Your task to perform on an android device: Open Google Chrome and click the shortcut for Amazon.com Image 0: 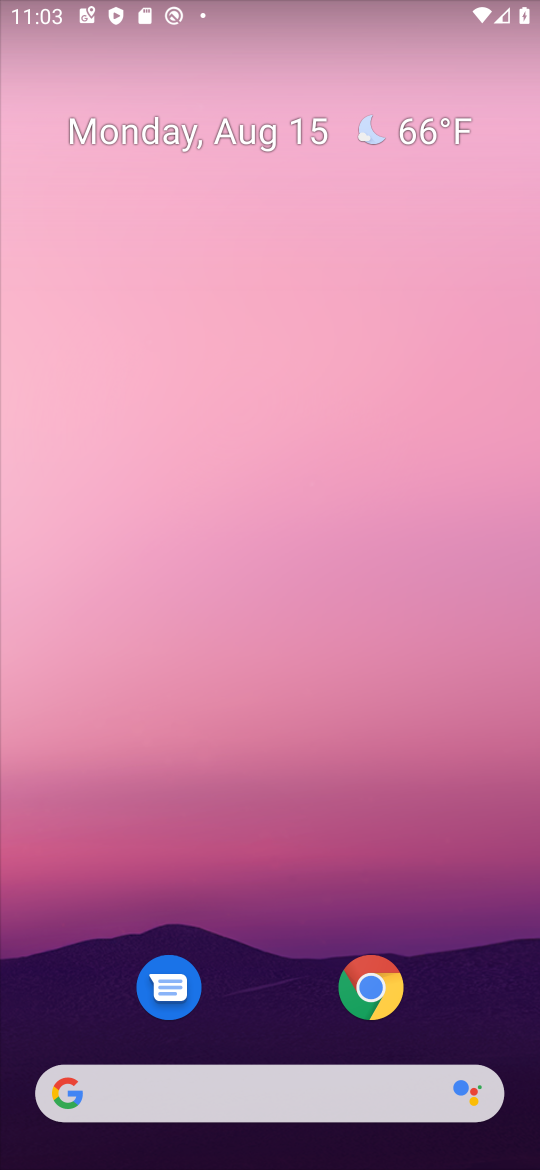
Step 0: click (356, 988)
Your task to perform on an android device: Open Google Chrome and click the shortcut for Amazon.com Image 1: 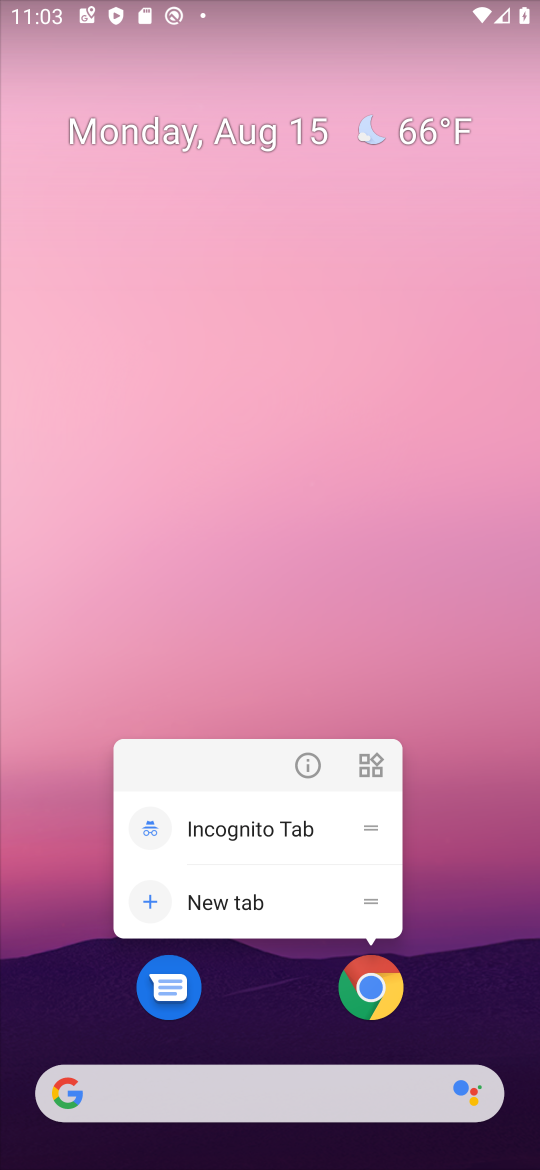
Step 1: click (380, 976)
Your task to perform on an android device: Open Google Chrome and click the shortcut for Amazon.com Image 2: 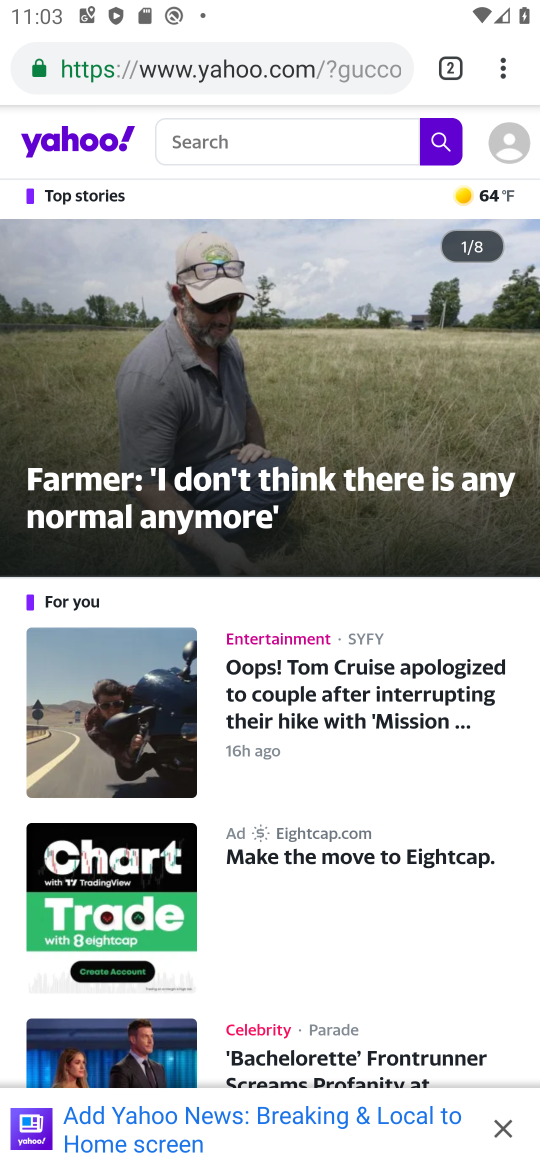
Step 2: click (444, 71)
Your task to perform on an android device: Open Google Chrome and click the shortcut for Amazon.com Image 3: 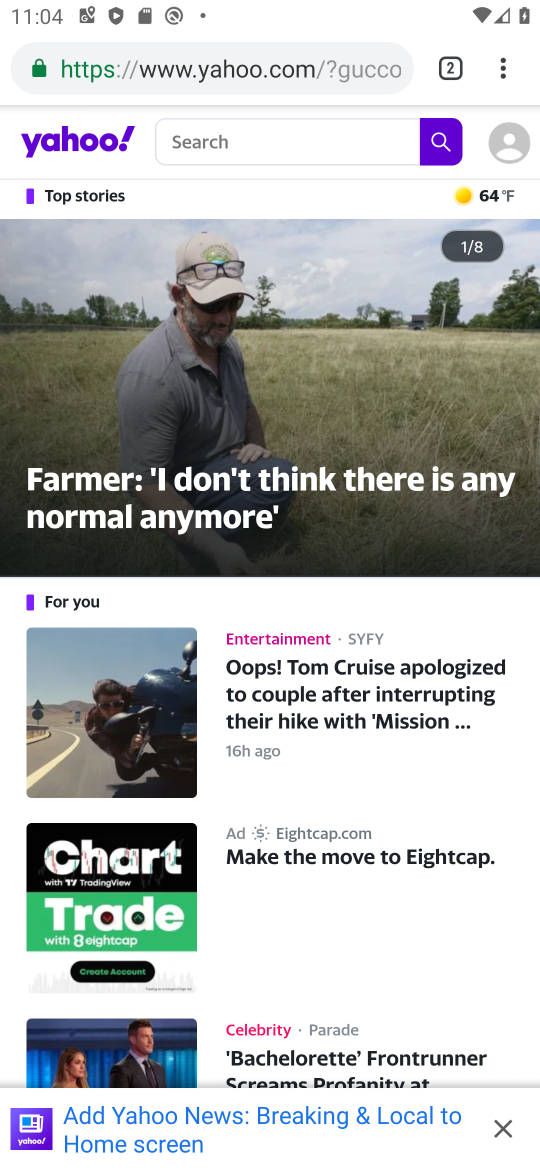
Step 3: click (435, 64)
Your task to perform on an android device: Open Google Chrome and click the shortcut for Amazon.com Image 4: 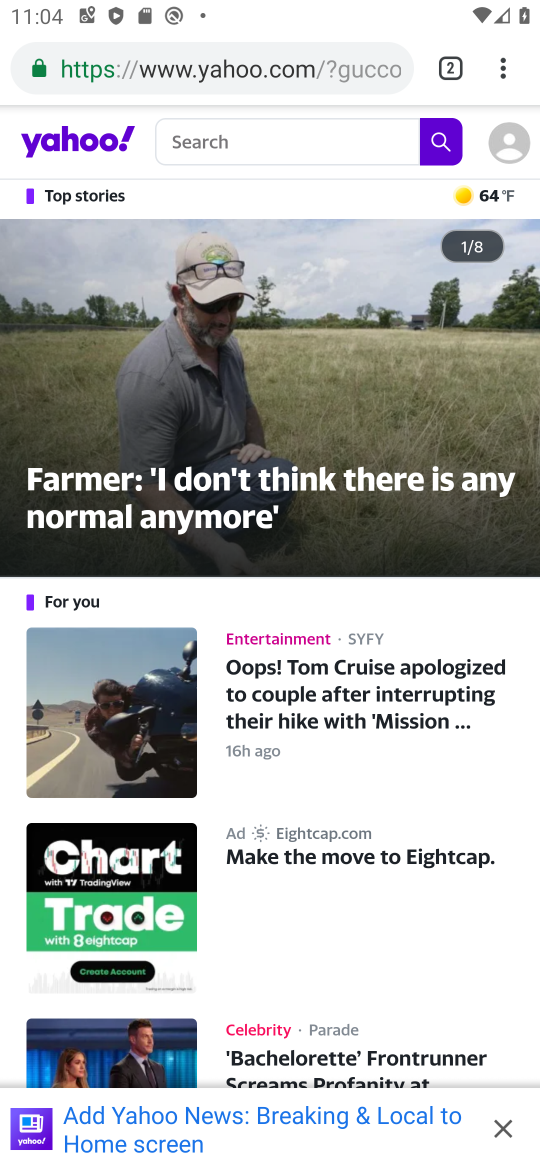
Step 4: click (446, 76)
Your task to perform on an android device: Open Google Chrome and click the shortcut for Amazon.com Image 5: 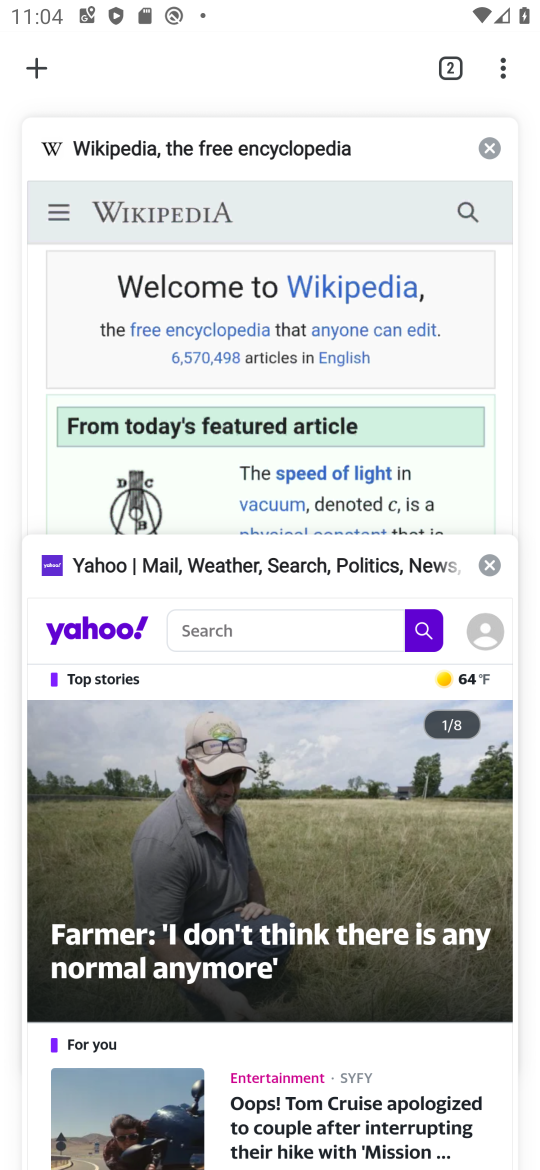
Step 5: click (34, 77)
Your task to perform on an android device: Open Google Chrome and click the shortcut for Amazon.com Image 6: 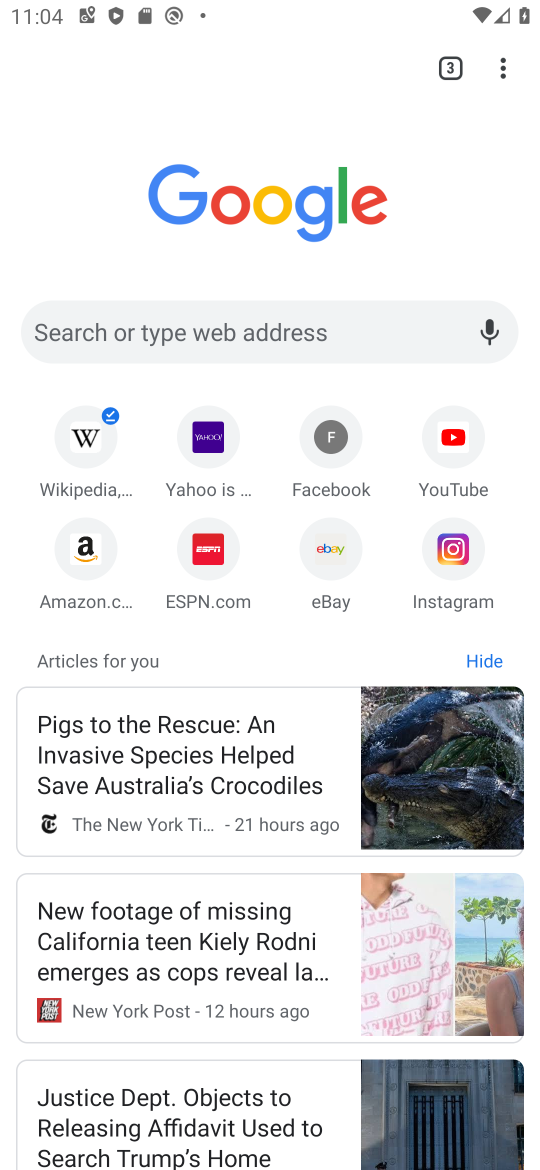
Step 6: click (76, 535)
Your task to perform on an android device: Open Google Chrome and click the shortcut for Amazon.com Image 7: 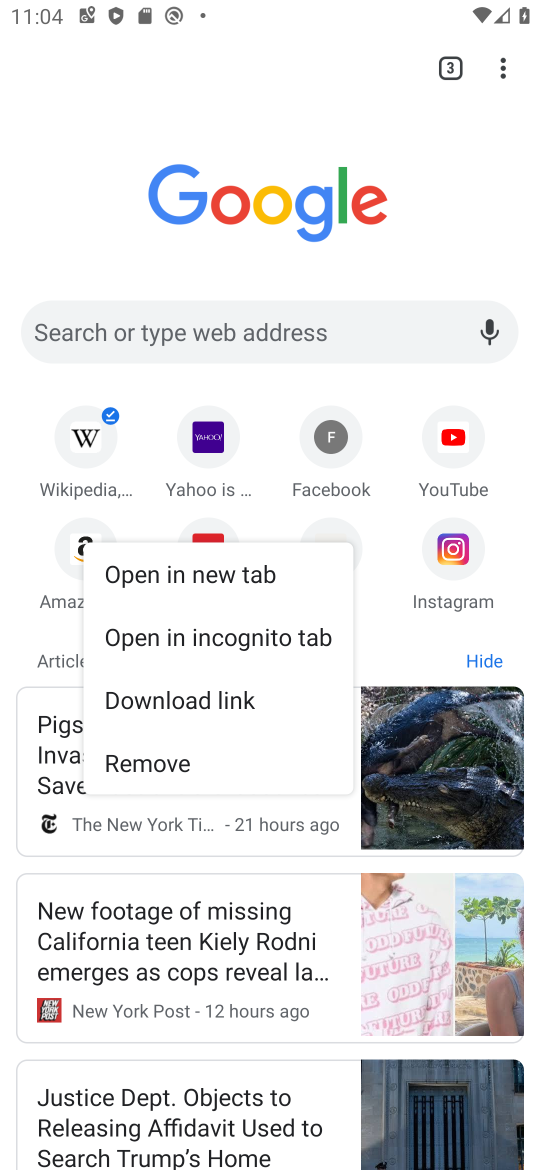
Step 7: click (57, 567)
Your task to perform on an android device: Open Google Chrome and click the shortcut for Amazon.com Image 8: 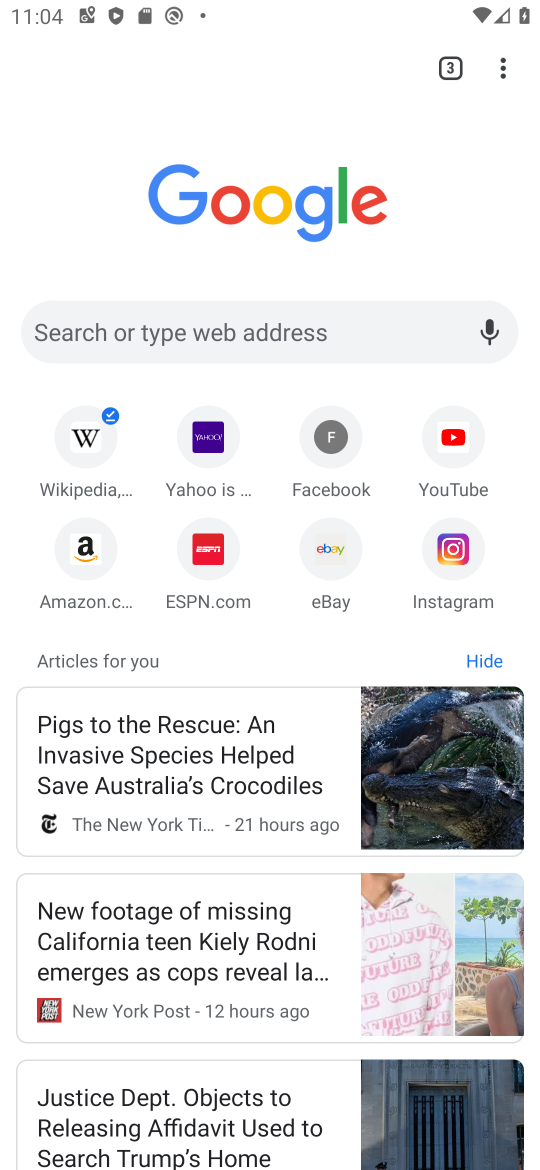
Step 8: click (69, 563)
Your task to perform on an android device: Open Google Chrome and click the shortcut for Amazon.com Image 9: 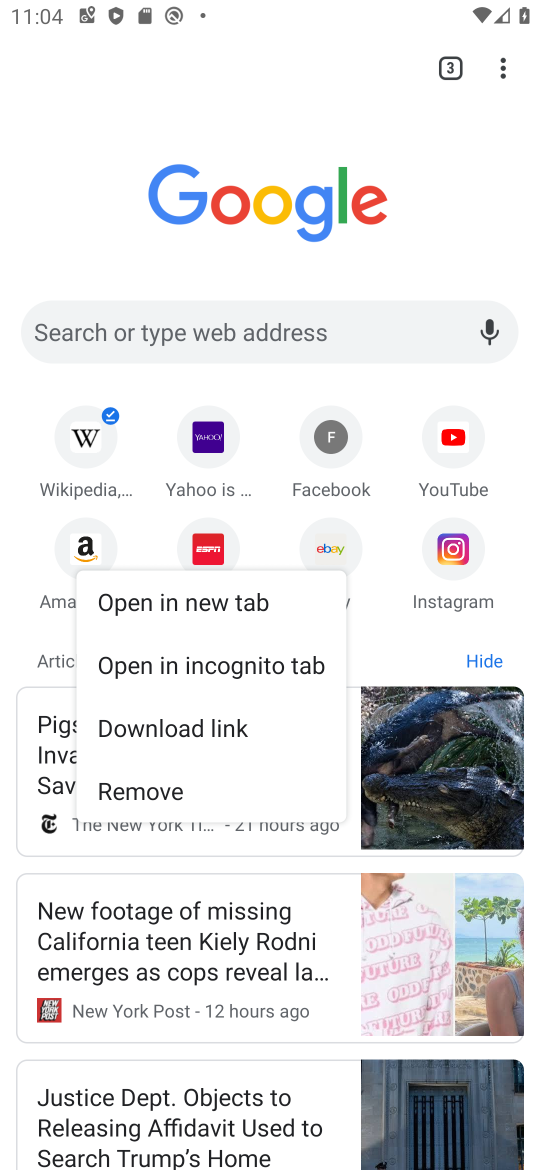
Step 9: click (72, 515)
Your task to perform on an android device: Open Google Chrome and click the shortcut for Amazon.com Image 10: 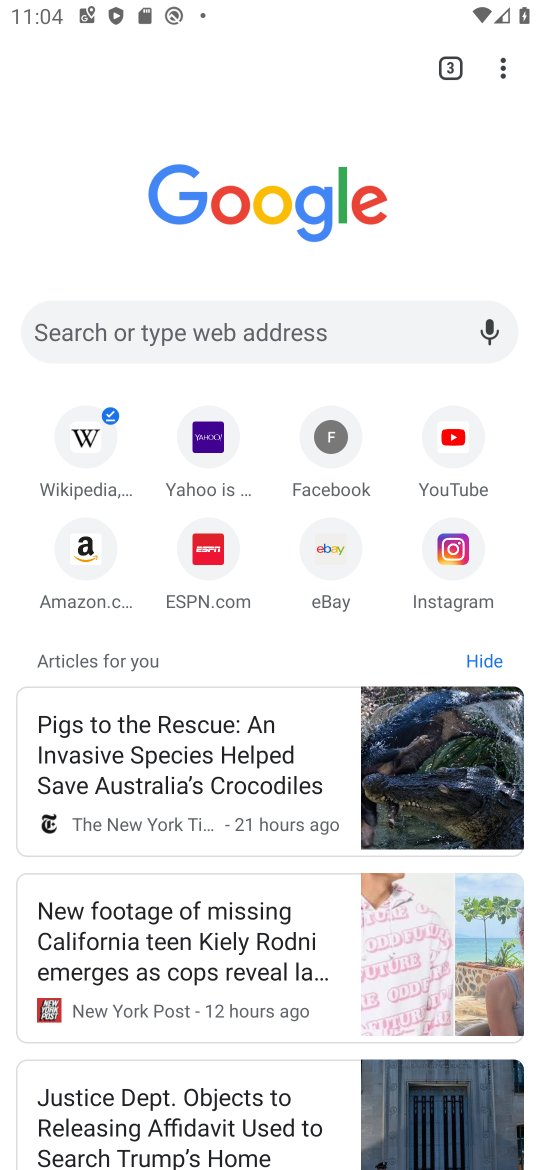
Step 10: click (68, 562)
Your task to perform on an android device: Open Google Chrome and click the shortcut for Amazon.com Image 11: 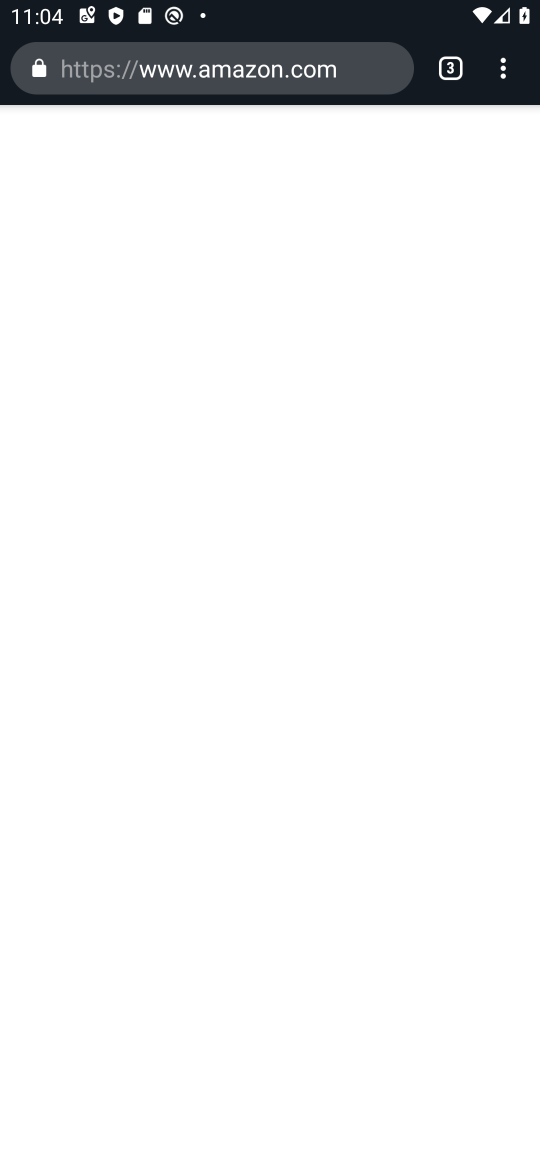
Step 11: task complete